Your task to perform on an android device: Is it going to rain this weekend? Image 0: 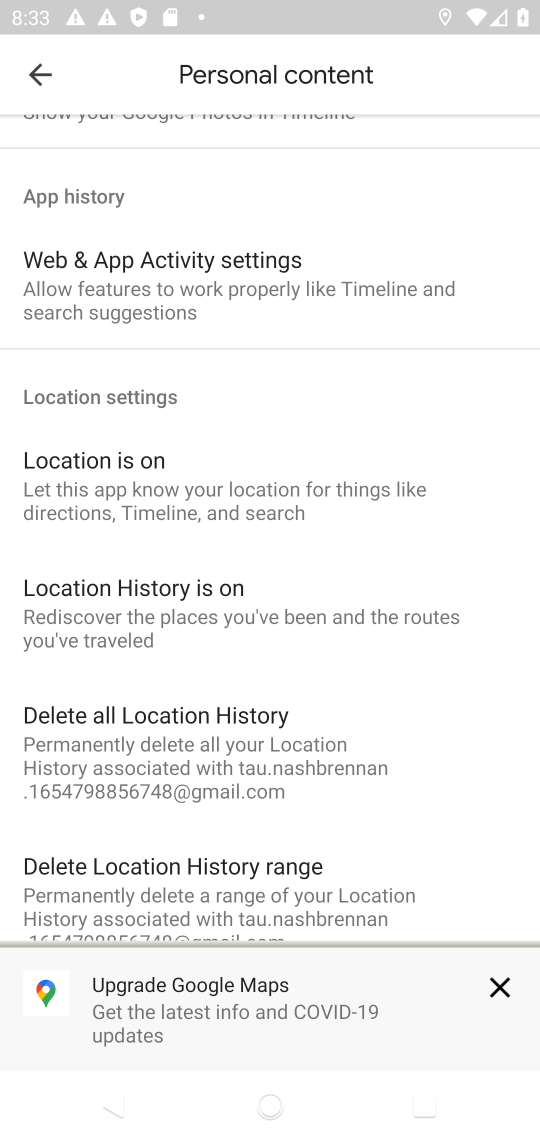
Step 0: press home button
Your task to perform on an android device: Is it going to rain this weekend? Image 1: 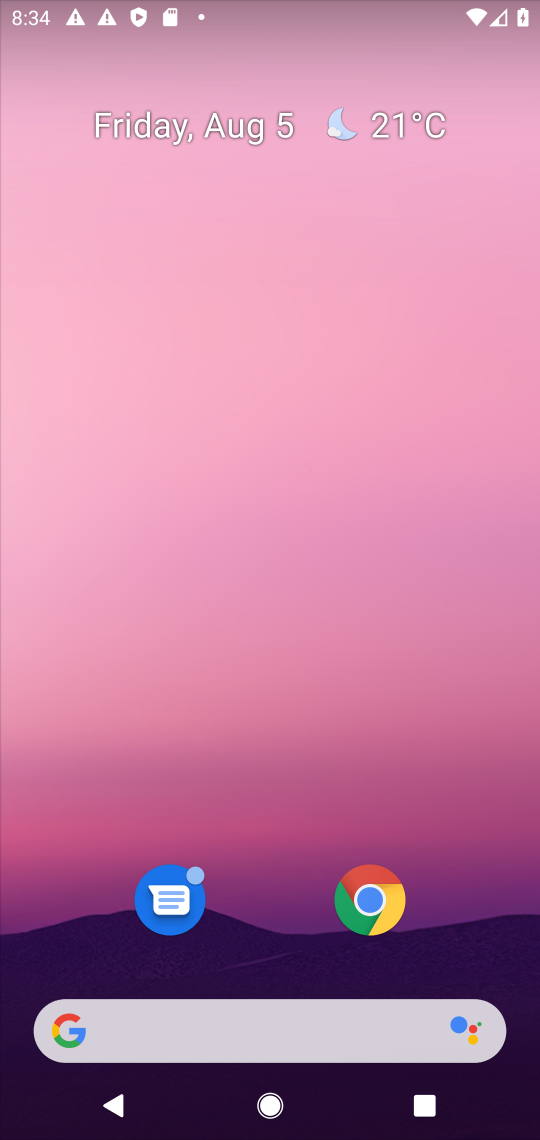
Step 1: drag from (264, 953) to (175, 155)
Your task to perform on an android device: Is it going to rain this weekend? Image 2: 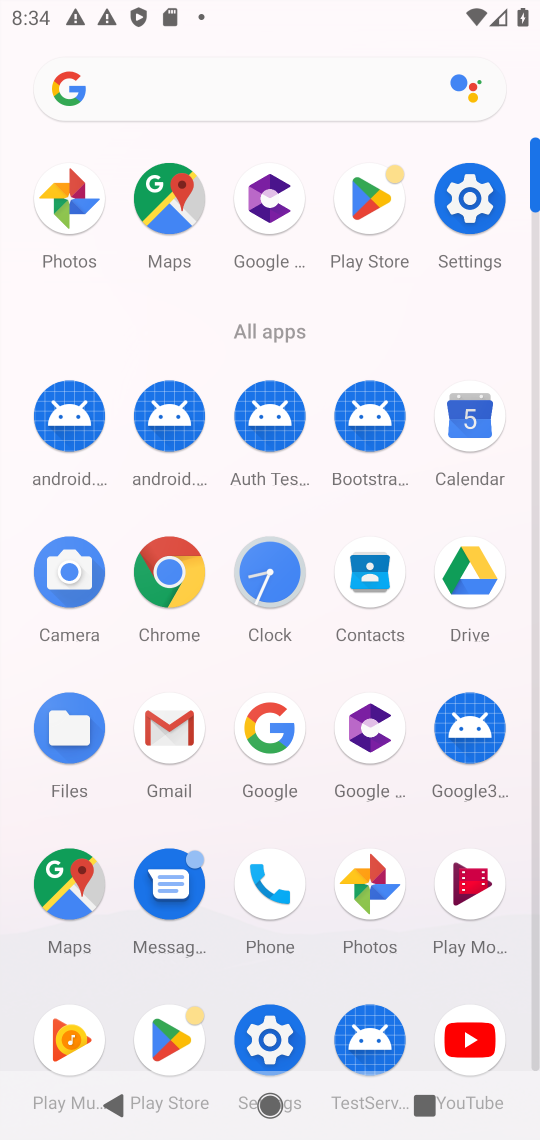
Step 2: drag from (315, 940) to (169, 258)
Your task to perform on an android device: Is it going to rain this weekend? Image 3: 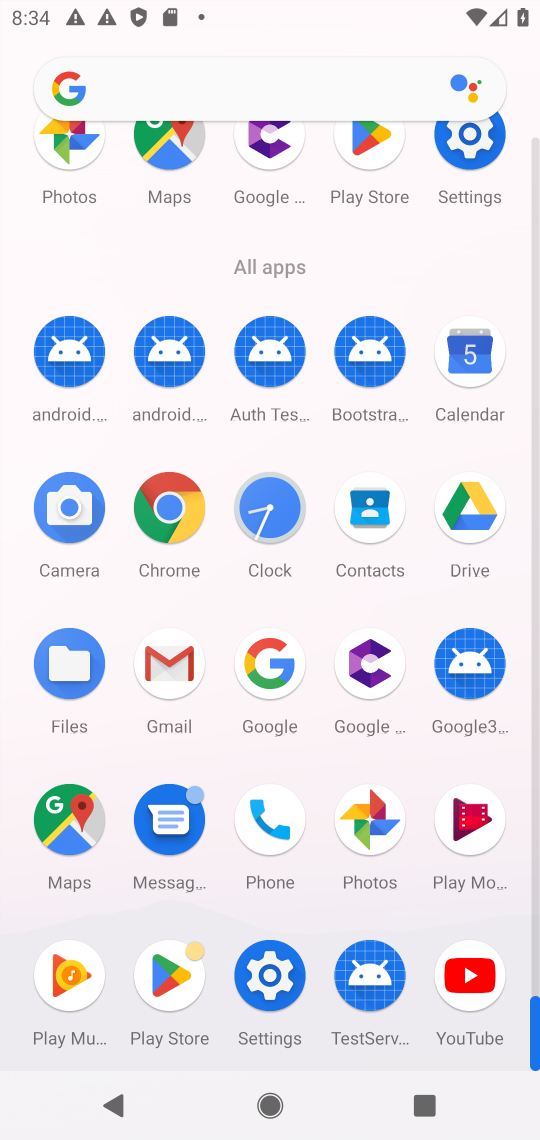
Step 3: click (180, 481)
Your task to perform on an android device: Is it going to rain this weekend? Image 4: 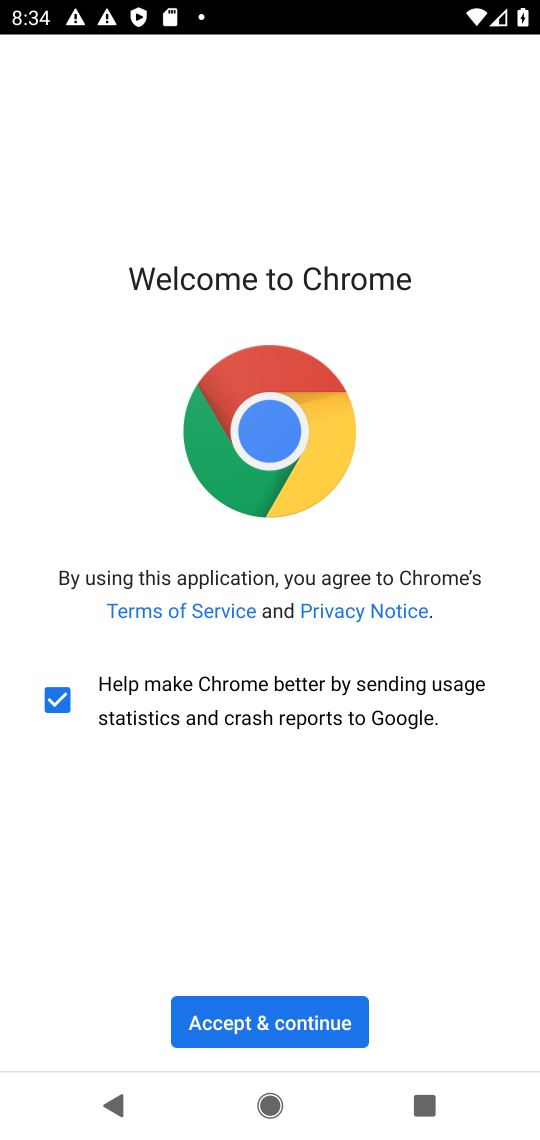
Step 4: click (307, 1016)
Your task to perform on an android device: Is it going to rain this weekend? Image 5: 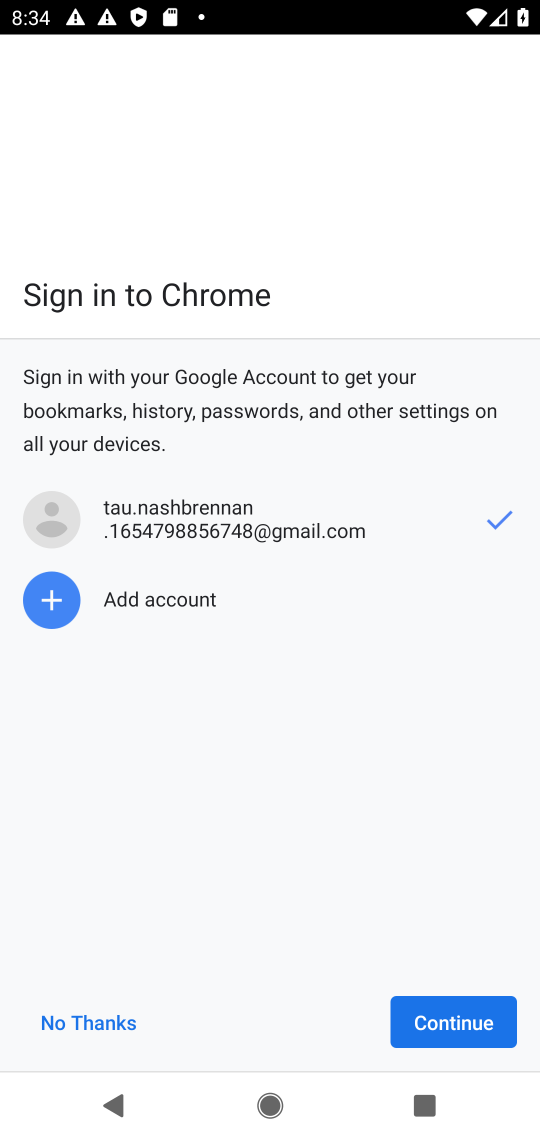
Step 5: click (430, 1025)
Your task to perform on an android device: Is it going to rain this weekend? Image 6: 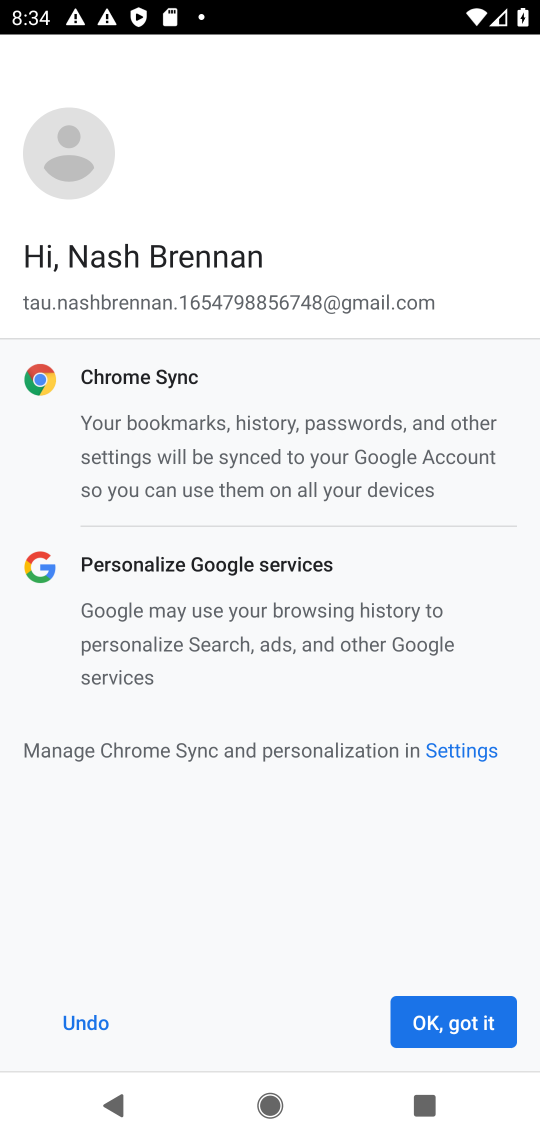
Step 6: click (430, 1025)
Your task to perform on an android device: Is it going to rain this weekend? Image 7: 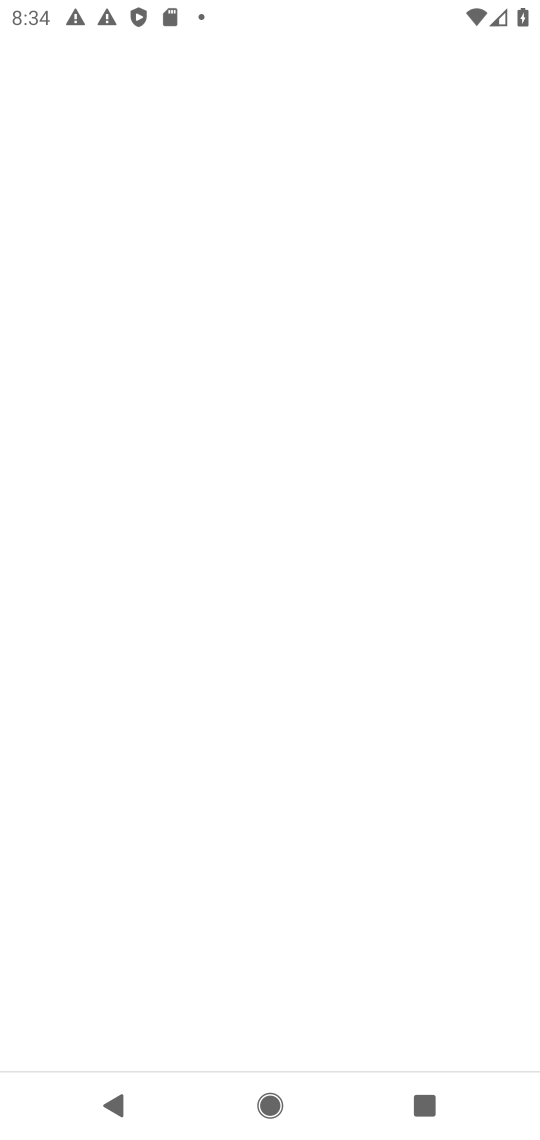
Step 7: click (430, 1025)
Your task to perform on an android device: Is it going to rain this weekend? Image 8: 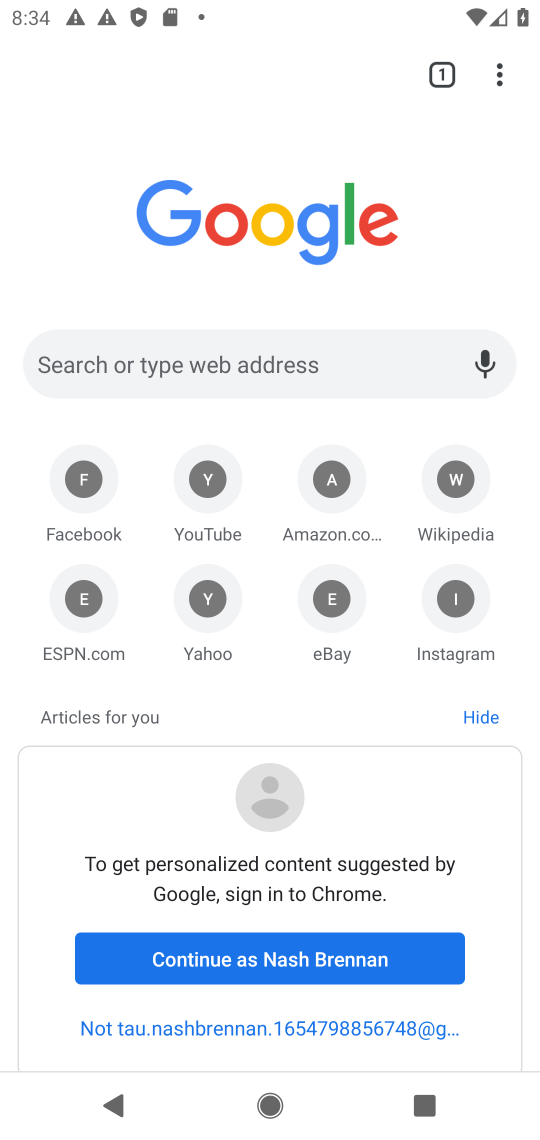
Step 8: click (149, 76)
Your task to perform on an android device: Is it going to rain this weekend? Image 9: 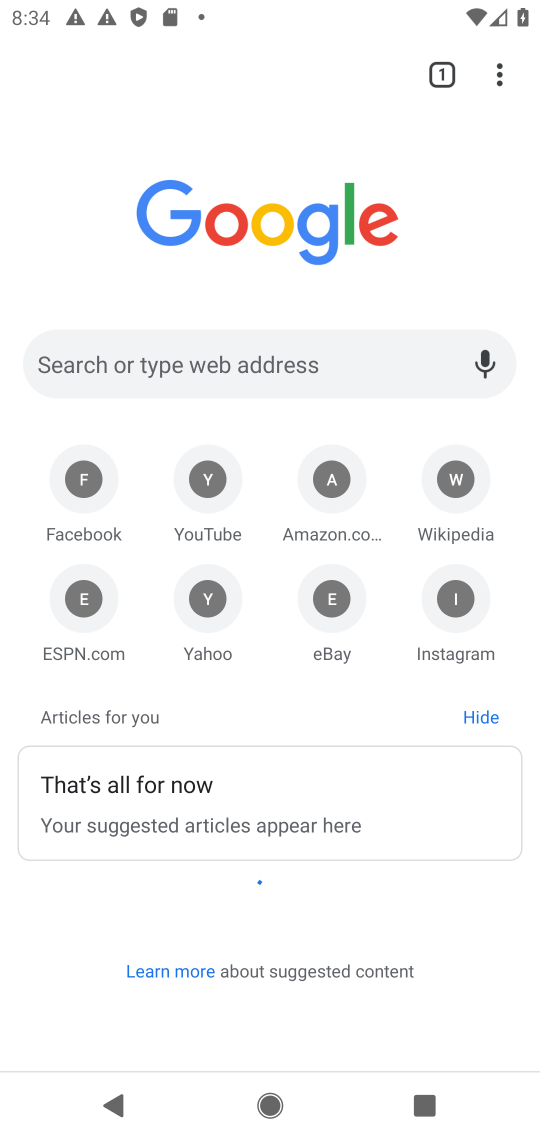
Step 9: click (136, 351)
Your task to perform on an android device: Is it going to rain this weekend? Image 10: 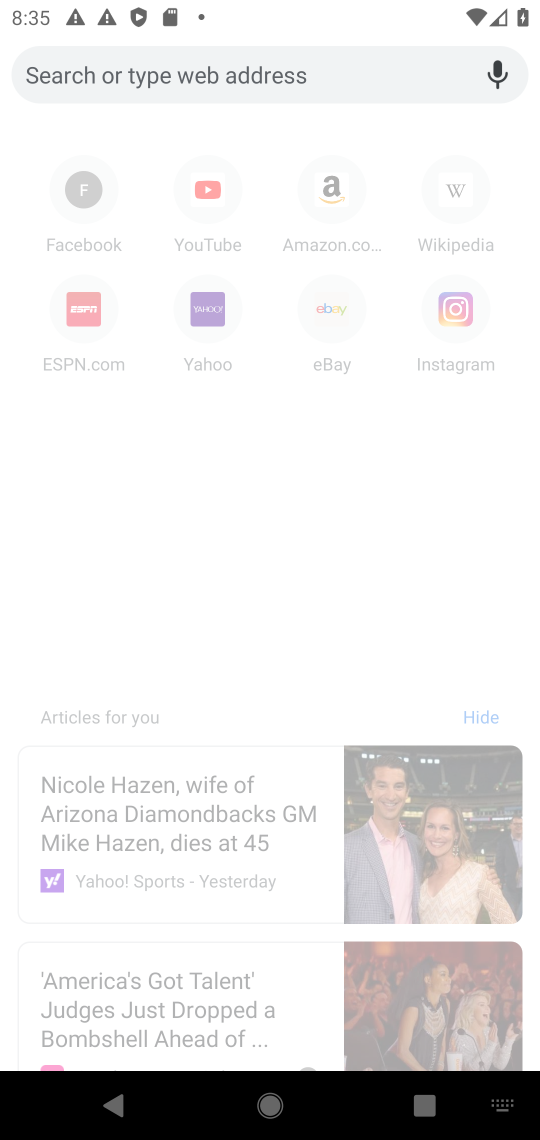
Step 10: type "Is it going to rain this weekend?"
Your task to perform on an android device: Is it going to rain this weekend? Image 11: 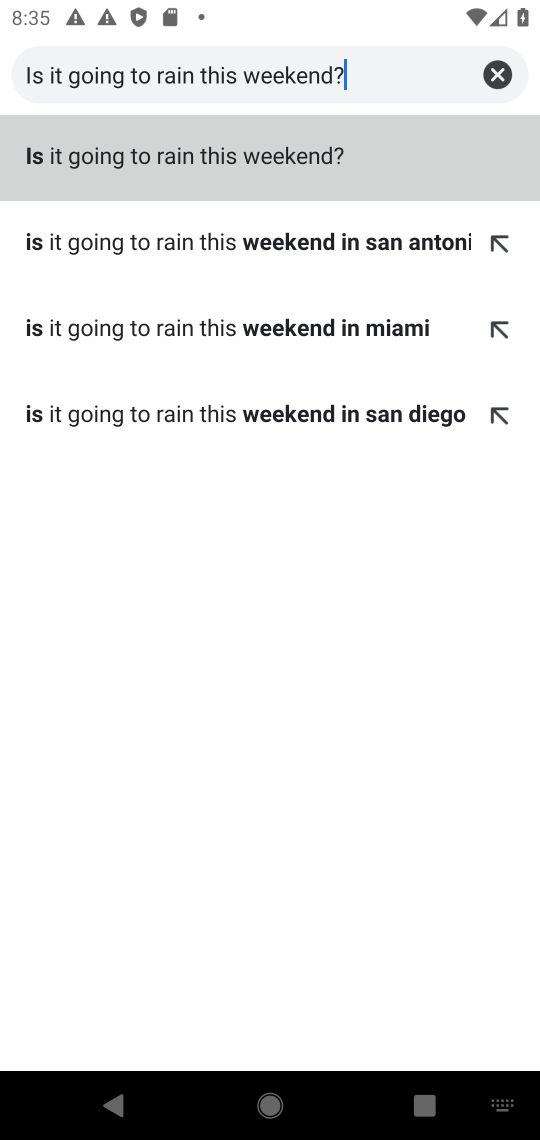
Step 11: click (293, 162)
Your task to perform on an android device: Is it going to rain this weekend? Image 12: 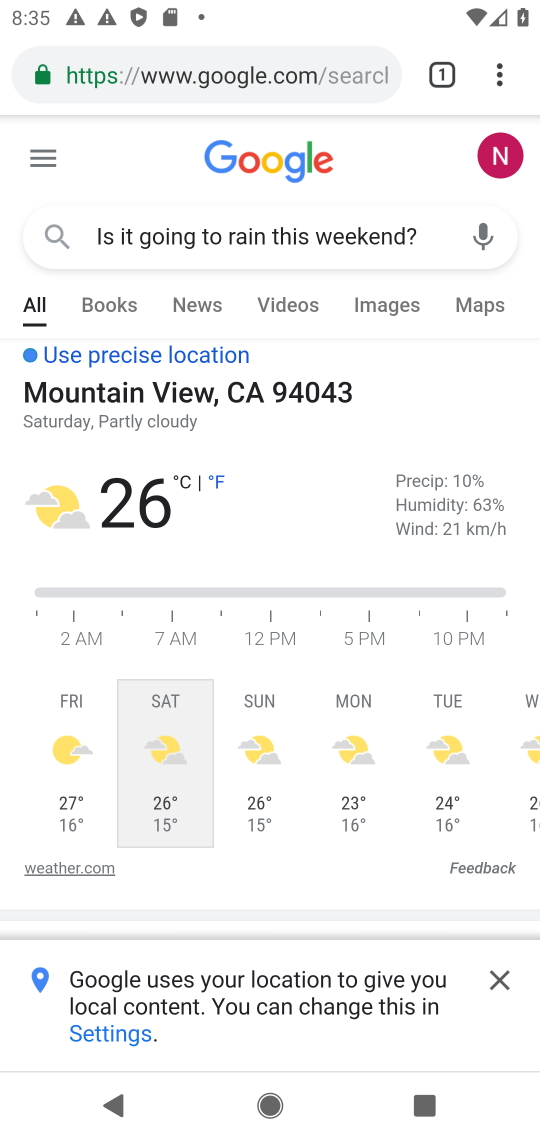
Step 12: task complete